Your task to perform on an android device: Set the phone to "Do not disturb". Image 0: 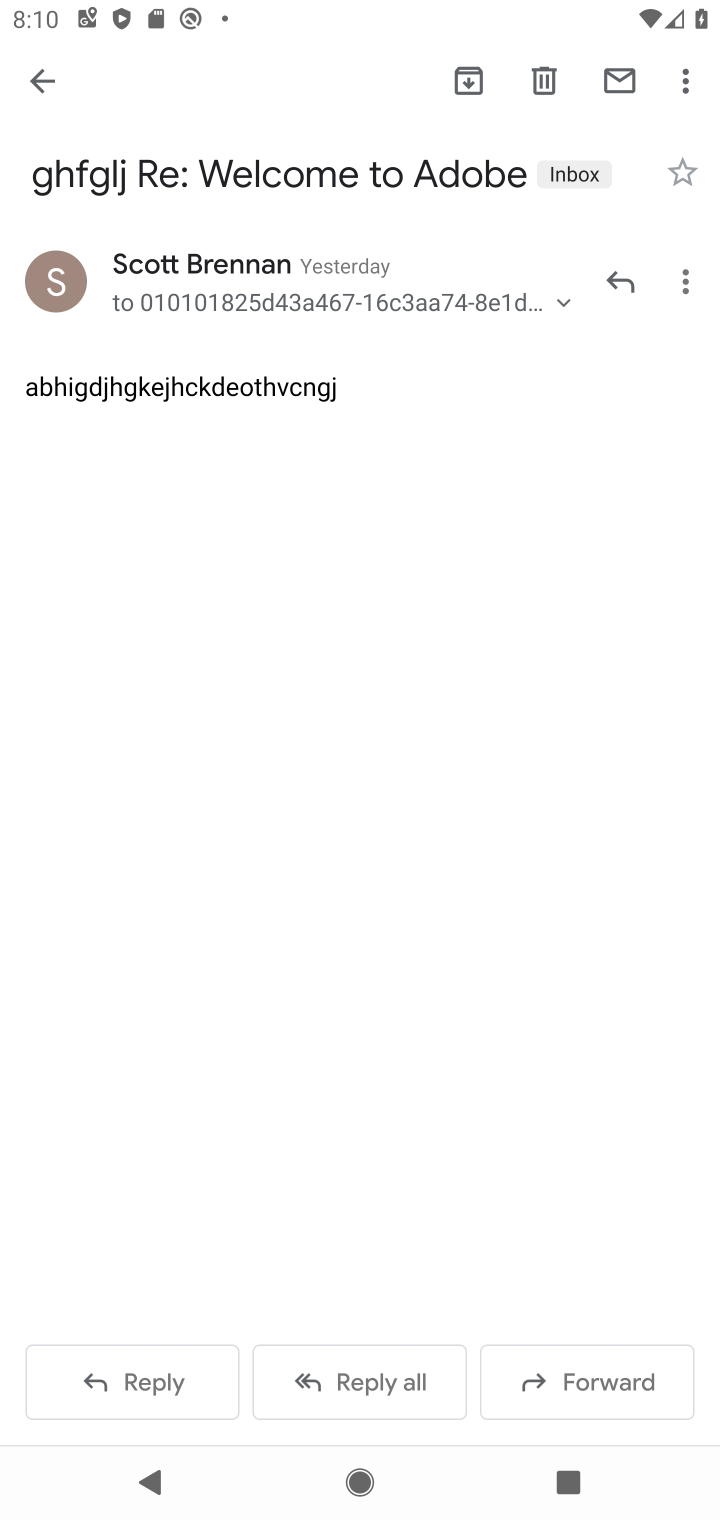
Step 0: press home button
Your task to perform on an android device: Set the phone to "Do not disturb". Image 1: 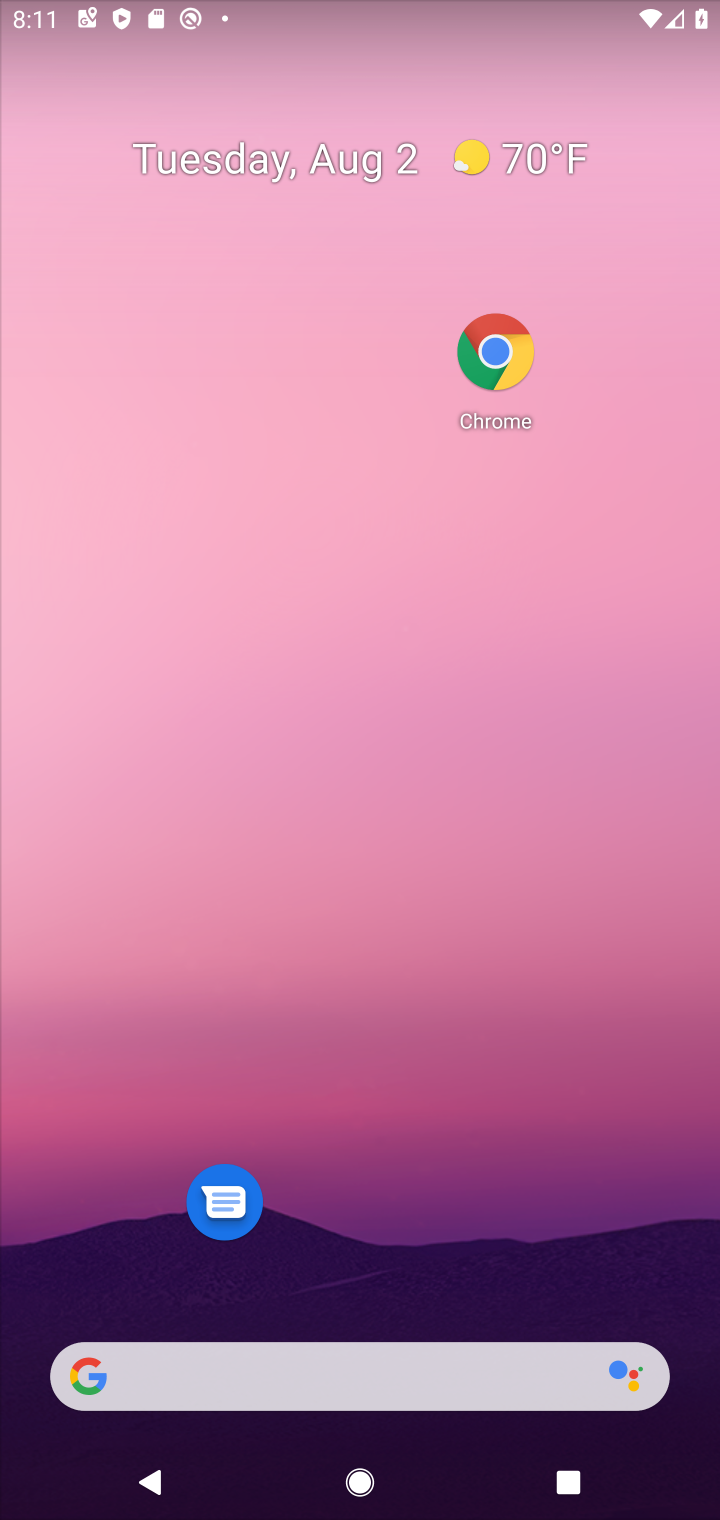
Step 1: drag from (387, 1257) to (314, 27)
Your task to perform on an android device: Set the phone to "Do not disturb". Image 2: 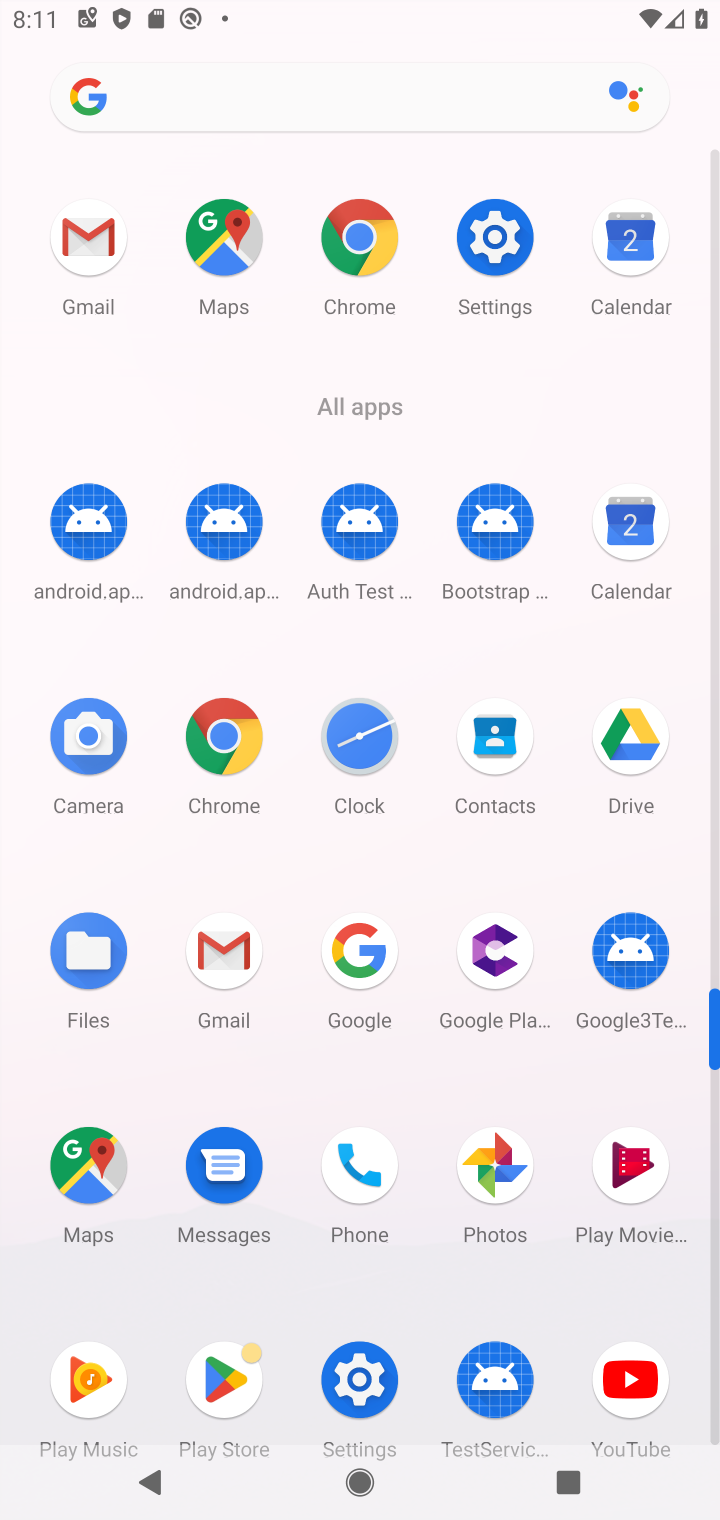
Step 2: click (507, 250)
Your task to perform on an android device: Set the phone to "Do not disturb". Image 3: 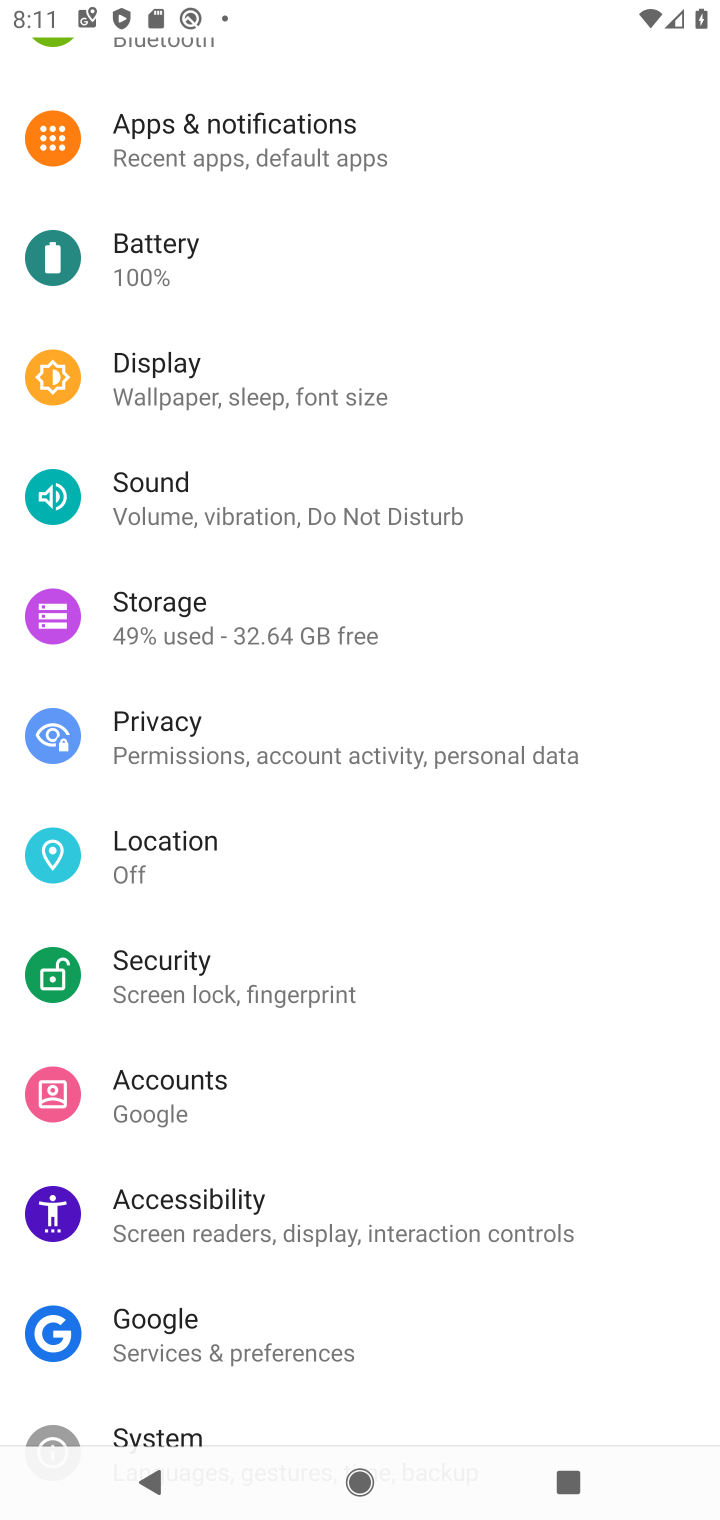
Step 3: click (198, 518)
Your task to perform on an android device: Set the phone to "Do not disturb". Image 4: 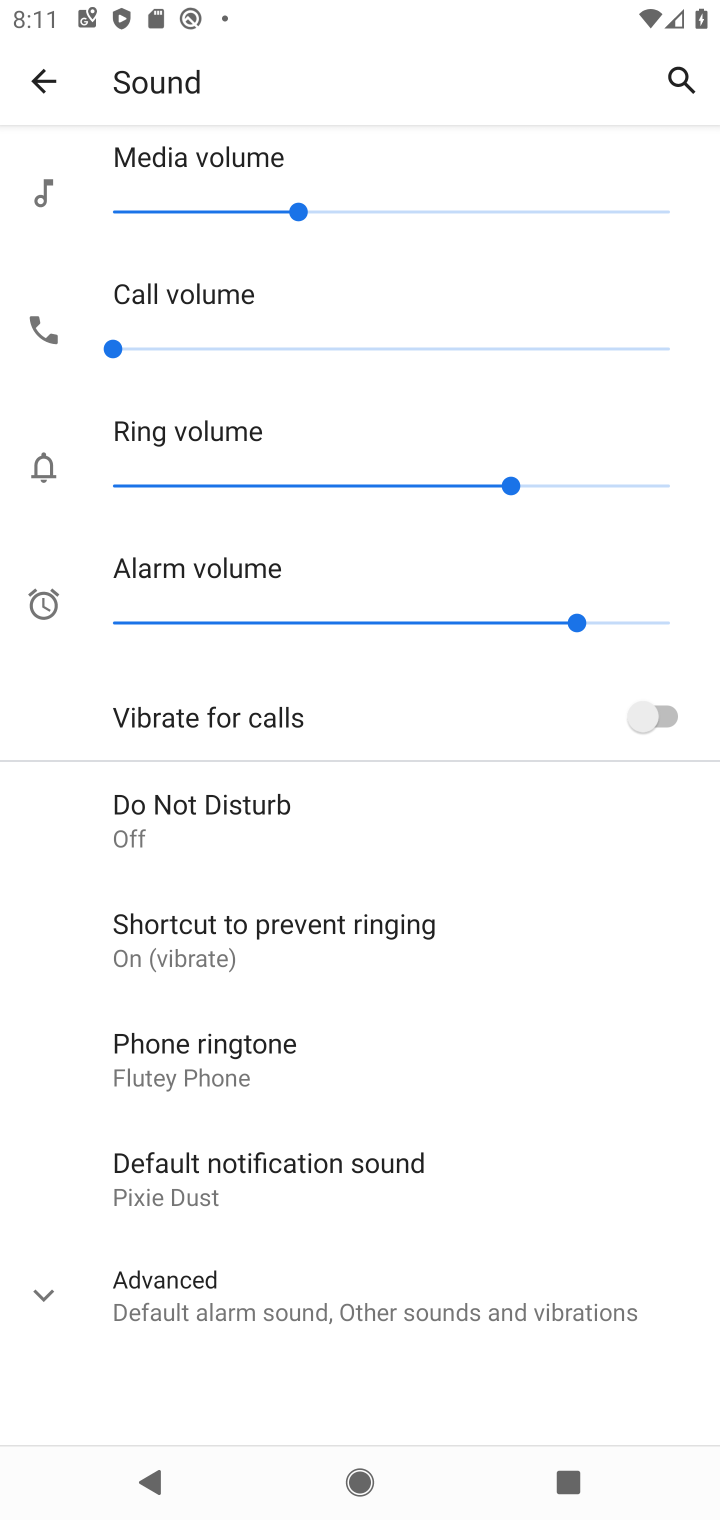
Step 4: click (162, 809)
Your task to perform on an android device: Set the phone to "Do not disturb". Image 5: 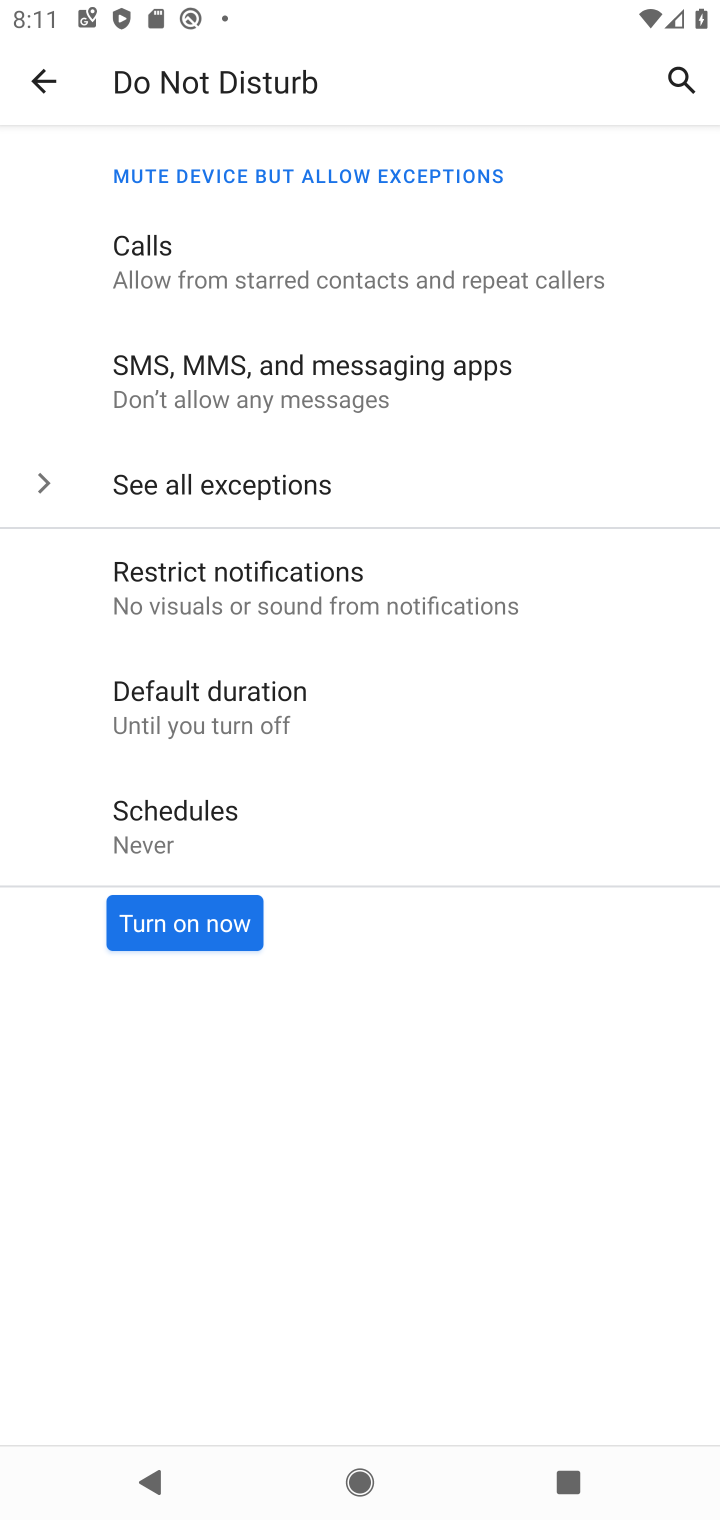
Step 5: click (187, 940)
Your task to perform on an android device: Set the phone to "Do not disturb". Image 6: 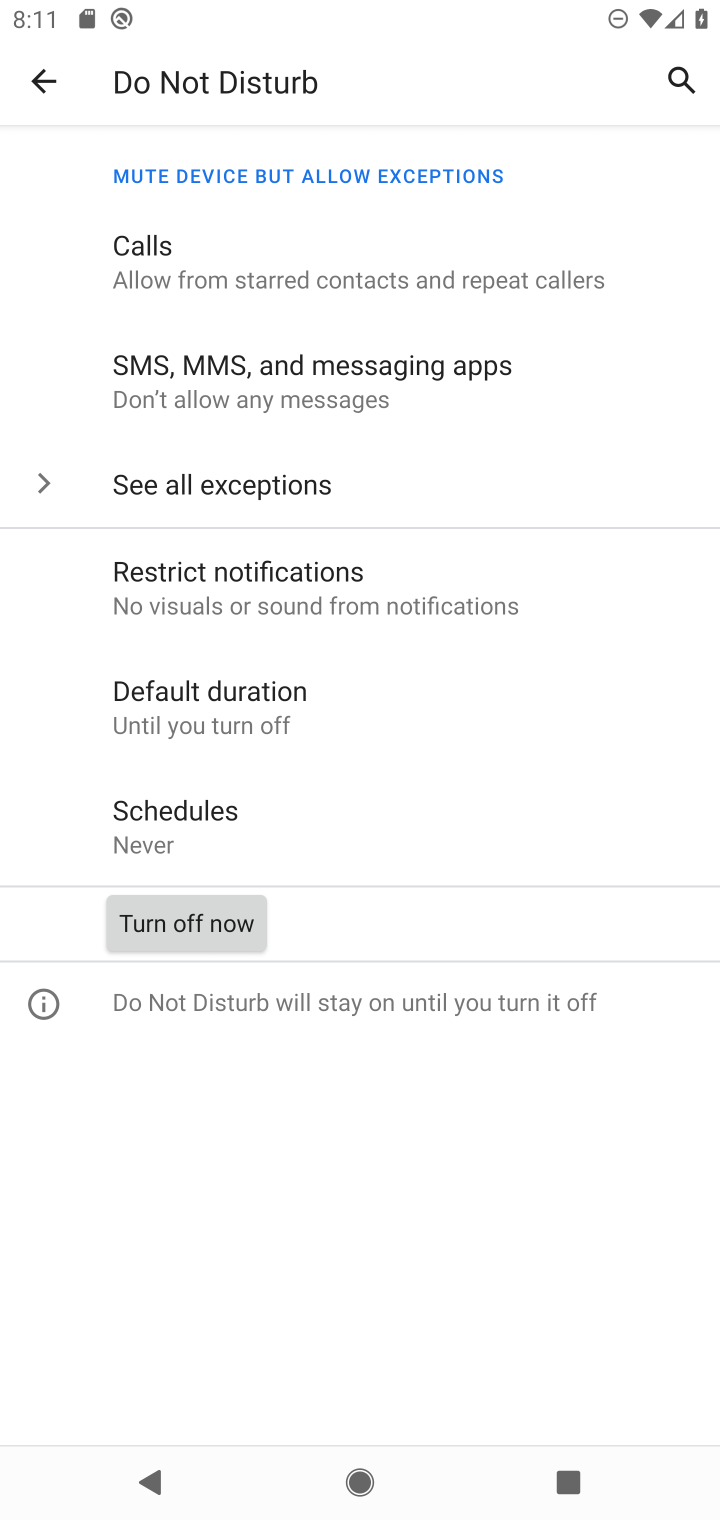
Step 6: task complete